Your task to perform on an android device: add a contact in the contacts app Image 0: 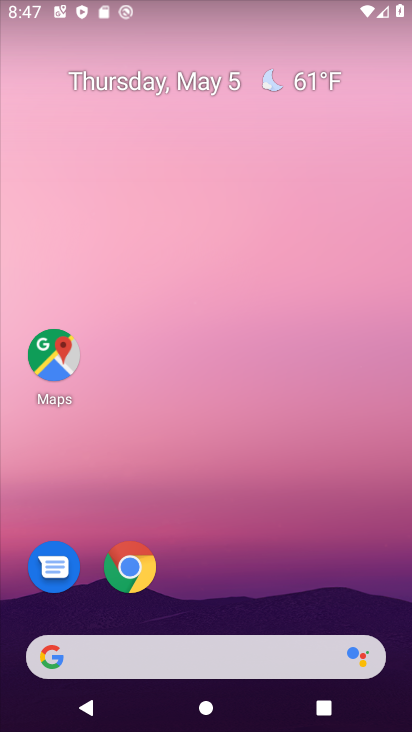
Step 0: drag from (235, 549) to (235, 84)
Your task to perform on an android device: add a contact in the contacts app Image 1: 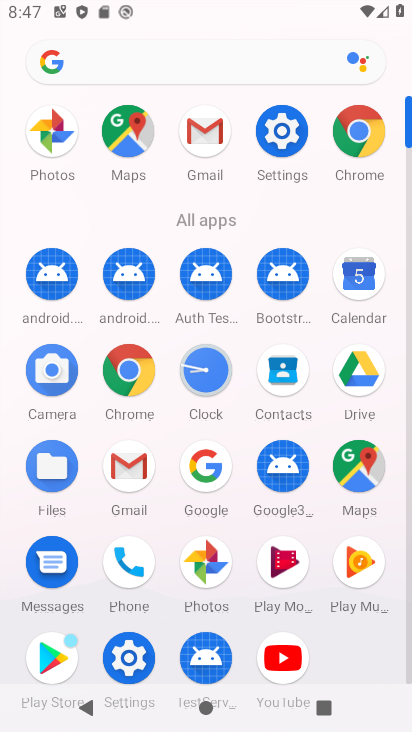
Step 1: click (279, 378)
Your task to perform on an android device: add a contact in the contacts app Image 2: 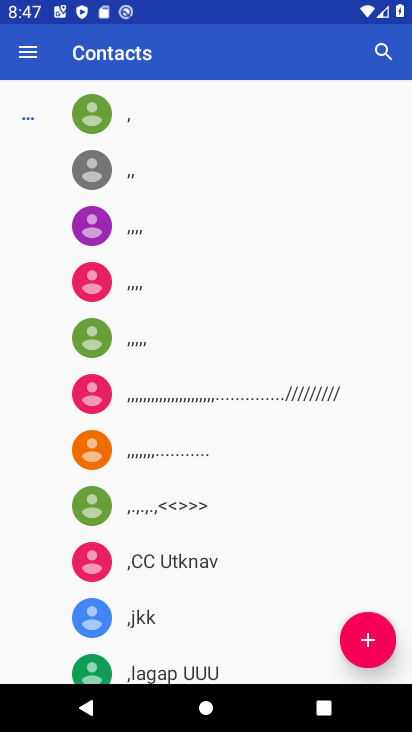
Step 2: click (372, 635)
Your task to perform on an android device: add a contact in the contacts app Image 3: 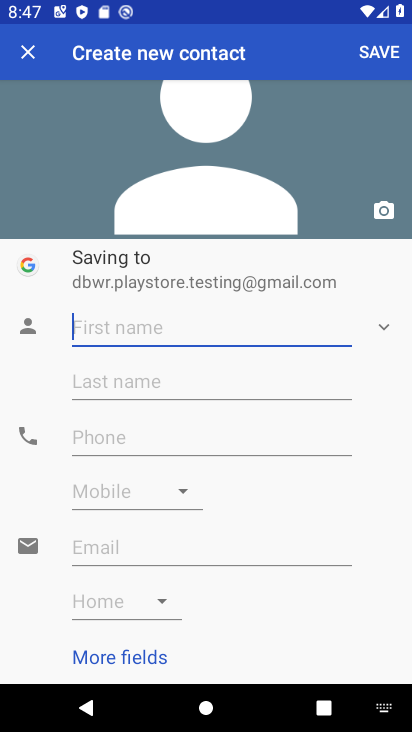
Step 3: type "grggw"
Your task to perform on an android device: add a contact in the contacts app Image 4: 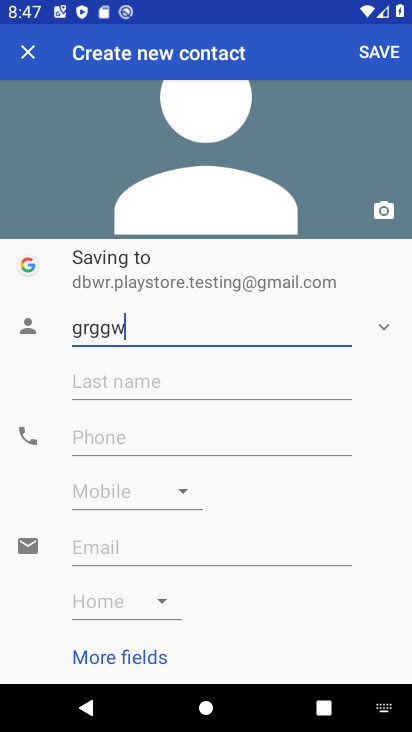
Step 4: click (163, 442)
Your task to perform on an android device: add a contact in the contacts app Image 5: 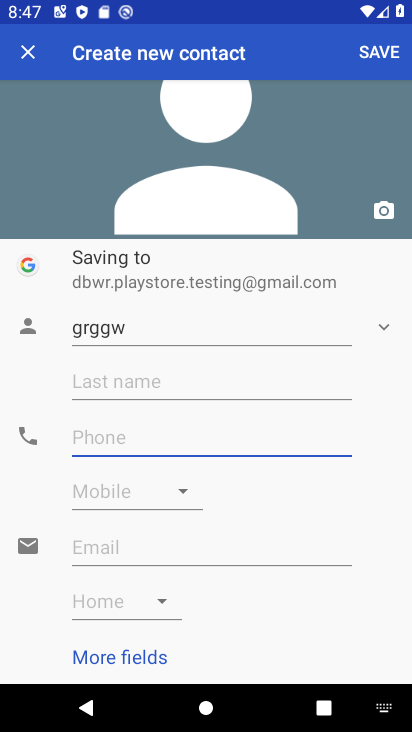
Step 5: type "43365657546"
Your task to perform on an android device: add a contact in the contacts app Image 6: 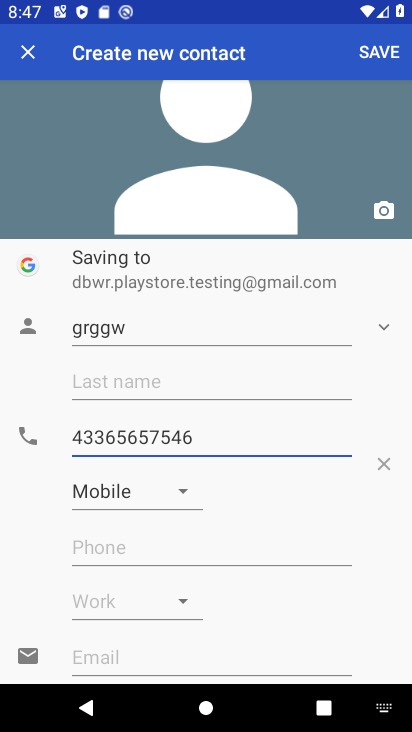
Step 6: click (366, 59)
Your task to perform on an android device: add a contact in the contacts app Image 7: 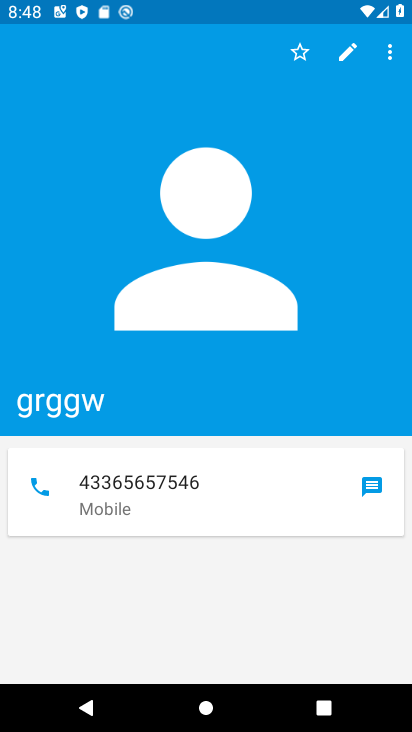
Step 7: task complete